Your task to perform on an android device: Go to location settings Image 0: 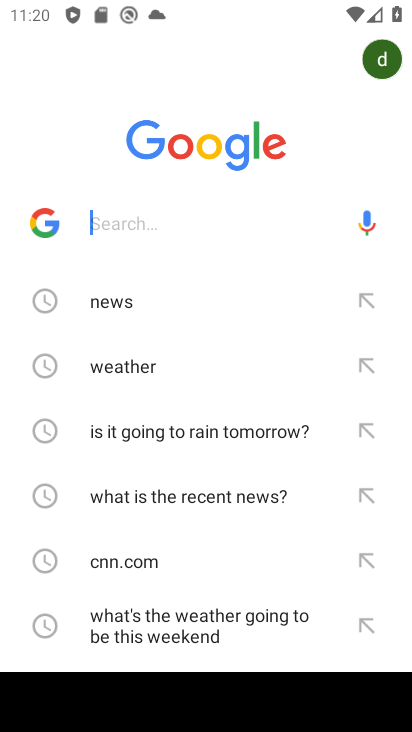
Step 0: press home button
Your task to perform on an android device: Go to location settings Image 1: 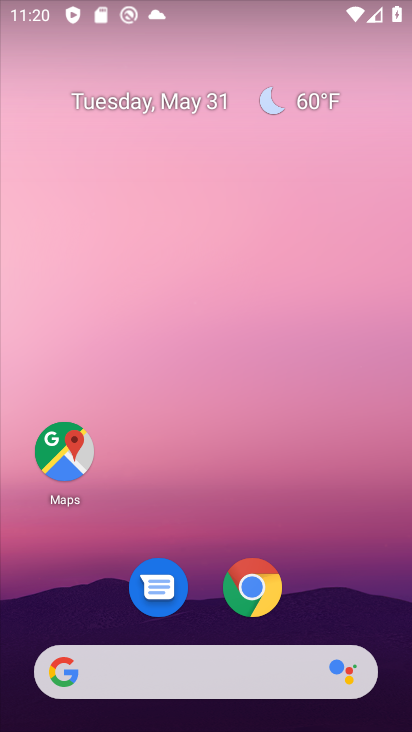
Step 1: drag from (69, 619) to (187, 10)
Your task to perform on an android device: Go to location settings Image 2: 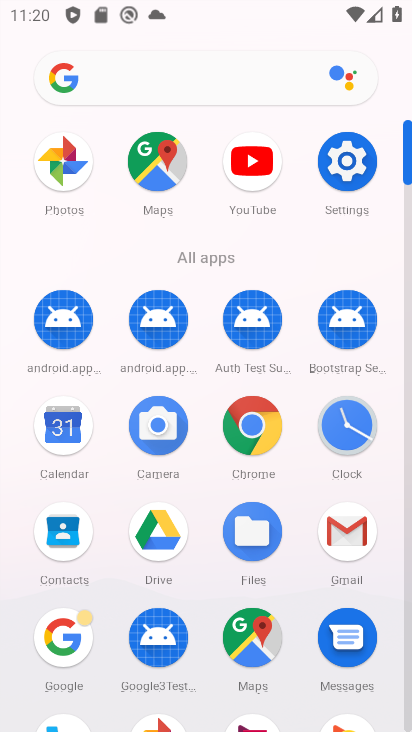
Step 2: drag from (172, 563) to (231, 247)
Your task to perform on an android device: Go to location settings Image 3: 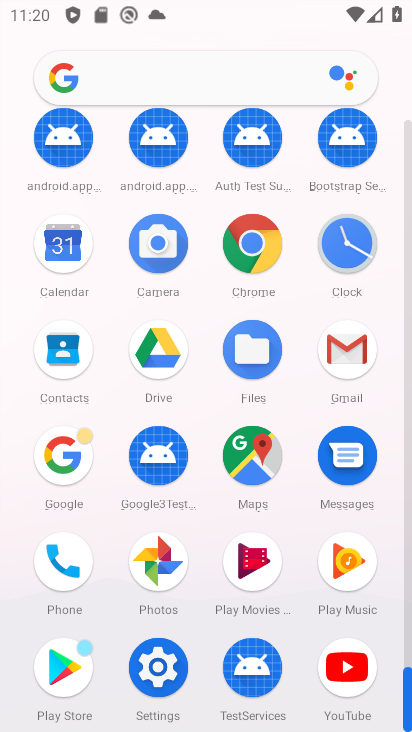
Step 3: click (152, 676)
Your task to perform on an android device: Go to location settings Image 4: 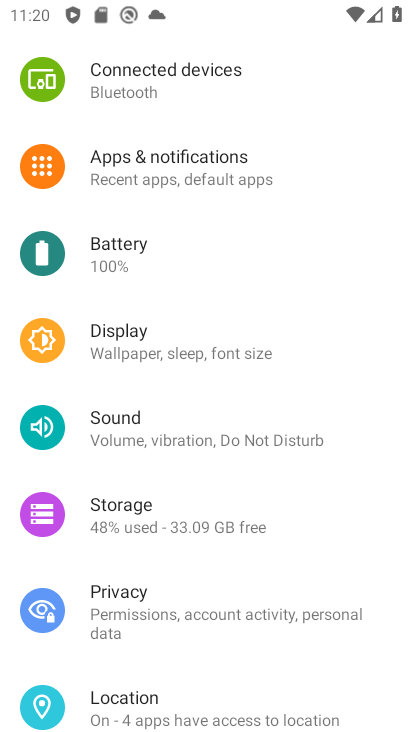
Step 4: drag from (189, 690) to (246, 392)
Your task to perform on an android device: Go to location settings Image 5: 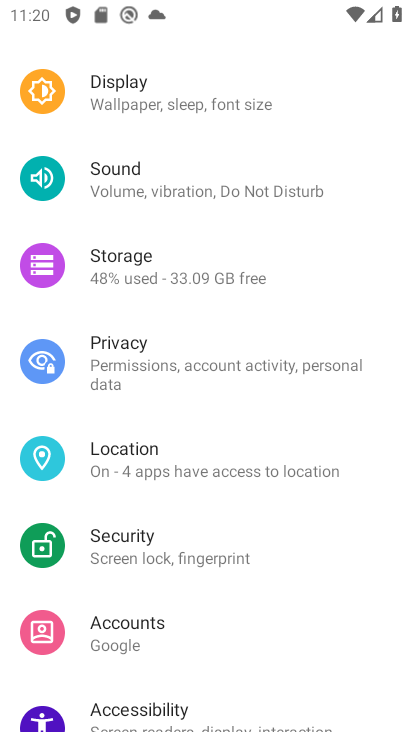
Step 5: click (180, 469)
Your task to perform on an android device: Go to location settings Image 6: 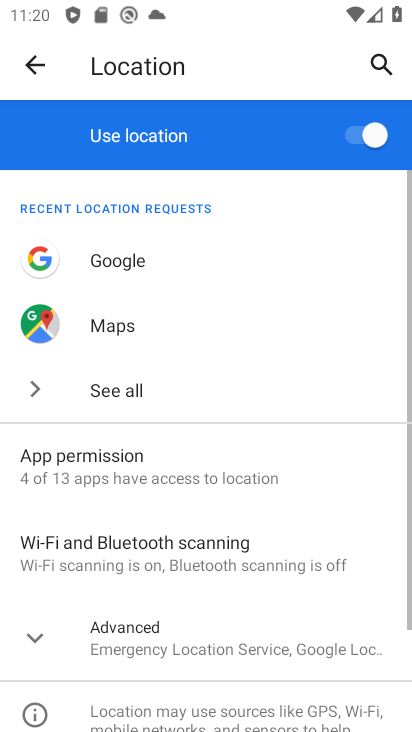
Step 6: task complete